Your task to perform on an android device: Open the calendar and show me this week's events Image 0: 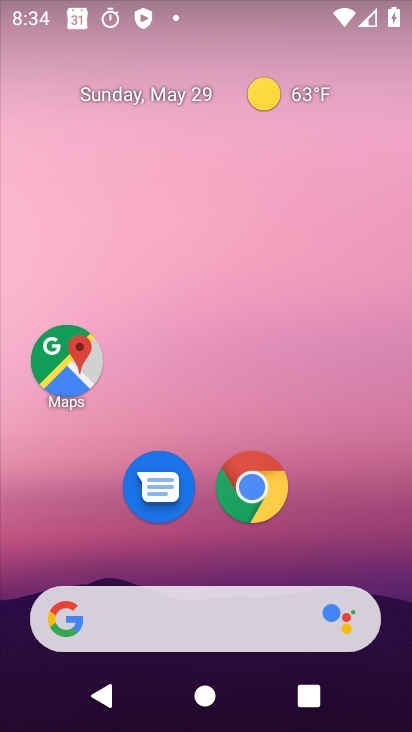
Step 0: drag from (329, 549) to (234, 93)
Your task to perform on an android device: Open the calendar and show me this week's events Image 1: 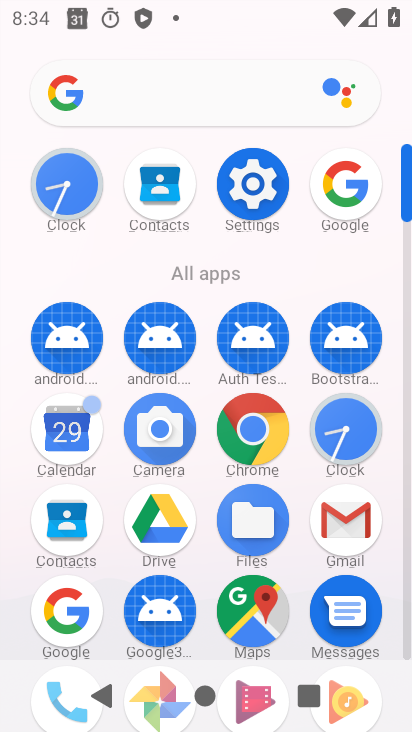
Step 1: click (68, 433)
Your task to perform on an android device: Open the calendar and show me this week's events Image 2: 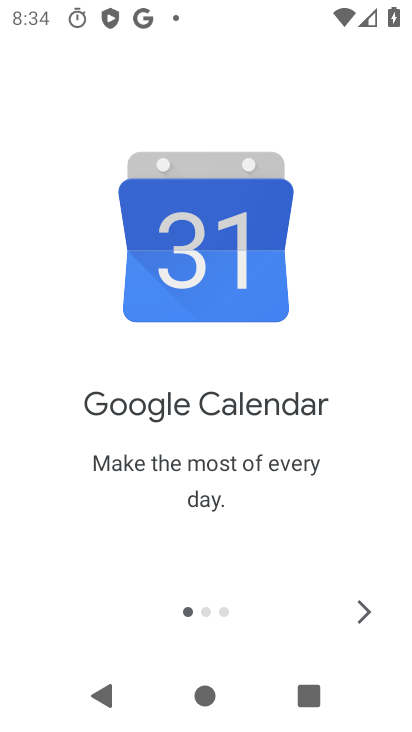
Step 2: click (369, 608)
Your task to perform on an android device: Open the calendar and show me this week's events Image 3: 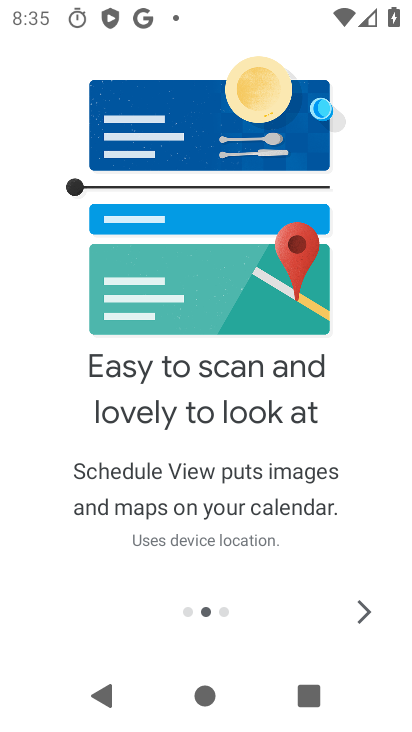
Step 3: click (369, 608)
Your task to perform on an android device: Open the calendar and show me this week's events Image 4: 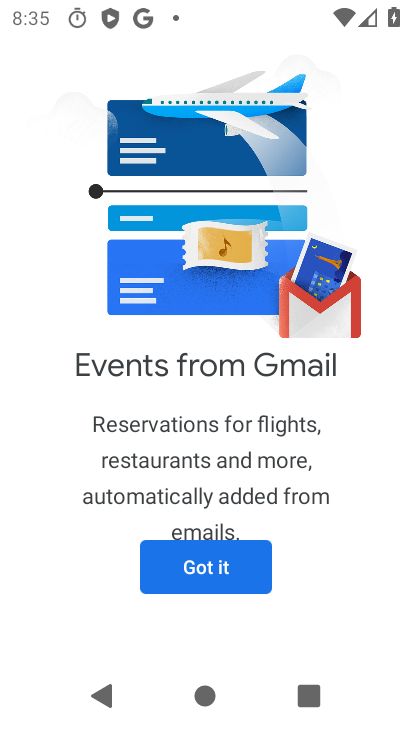
Step 4: click (216, 576)
Your task to perform on an android device: Open the calendar and show me this week's events Image 5: 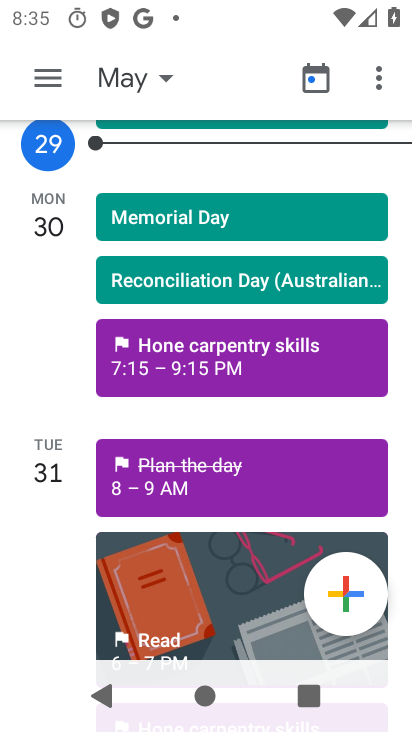
Step 5: click (165, 81)
Your task to perform on an android device: Open the calendar and show me this week's events Image 6: 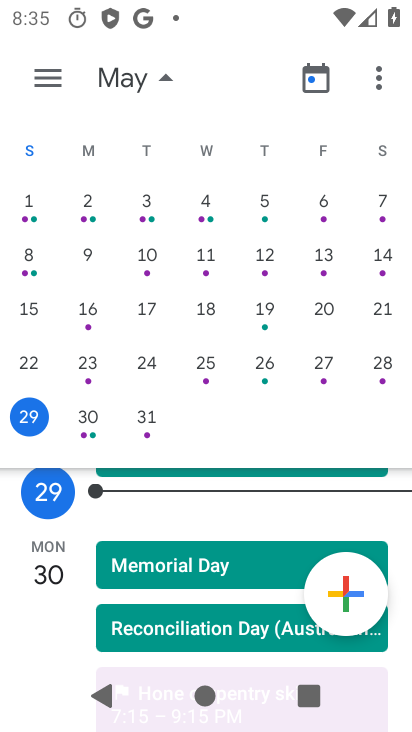
Step 6: click (65, 75)
Your task to perform on an android device: Open the calendar and show me this week's events Image 7: 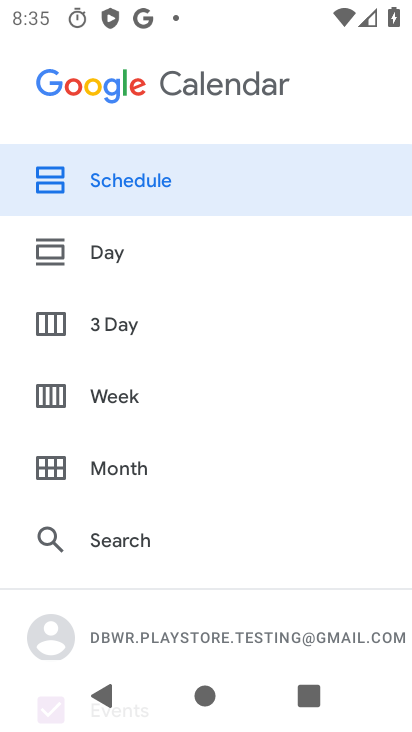
Step 7: click (124, 178)
Your task to perform on an android device: Open the calendar and show me this week's events Image 8: 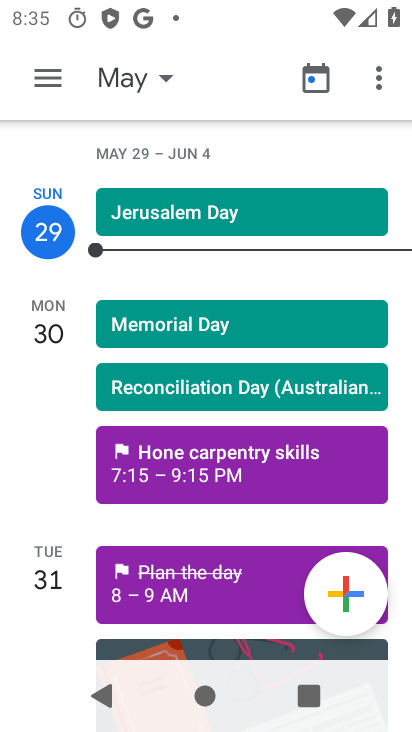
Step 8: task complete